Your task to perform on an android device: Search for seafood restaurants on Google Maps Image 0: 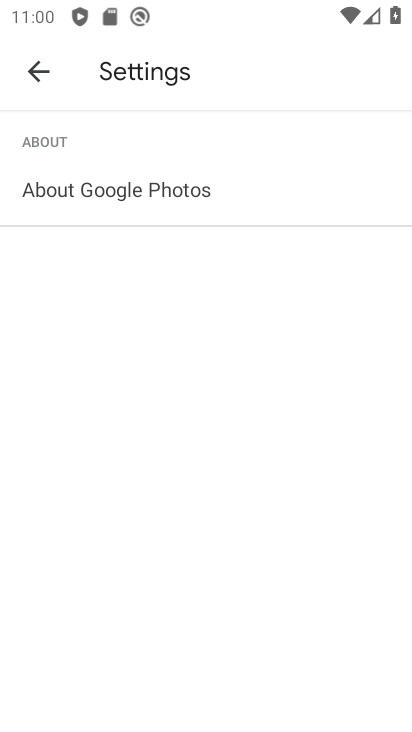
Step 0: press home button
Your task to perform on an android device: Search for seafood restaurants on Google Maps Image 1: 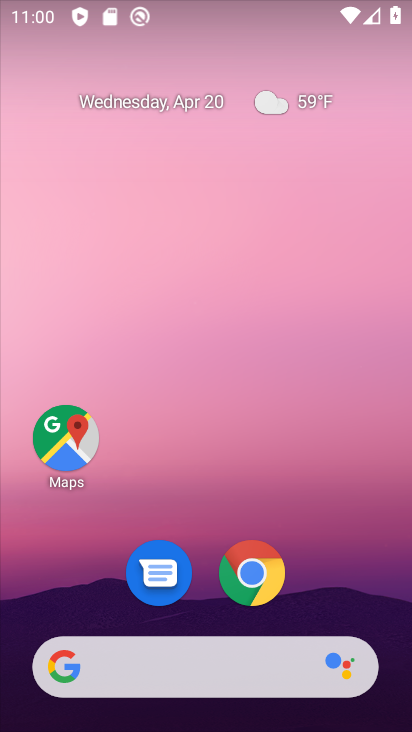
Step 1: click (59, 448)
Your task to perform on an android device: Search for seafood restaurants on Google Maps Image 2: 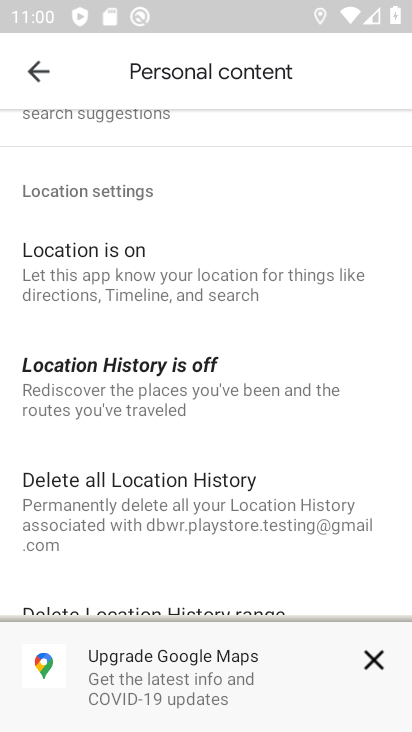
Step 2: click (34, 76)
Your task to perform on an android device: Search for seafood restaurants on Google Maps Image 3: 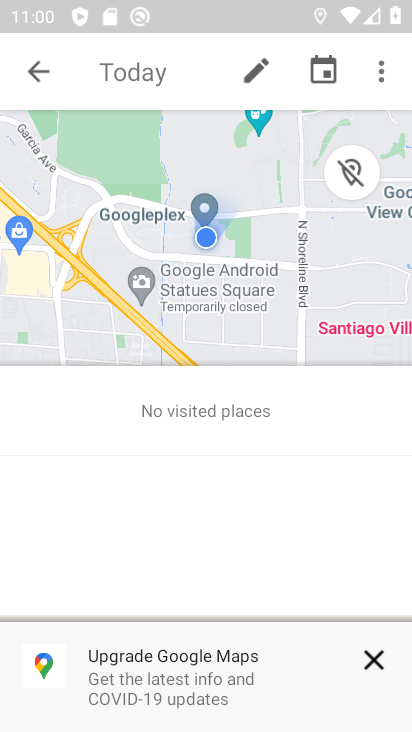
Step 3: click (46, 81)
Your task to perform on an android device: Search for seafood restaurants on Google Maps Image 4: 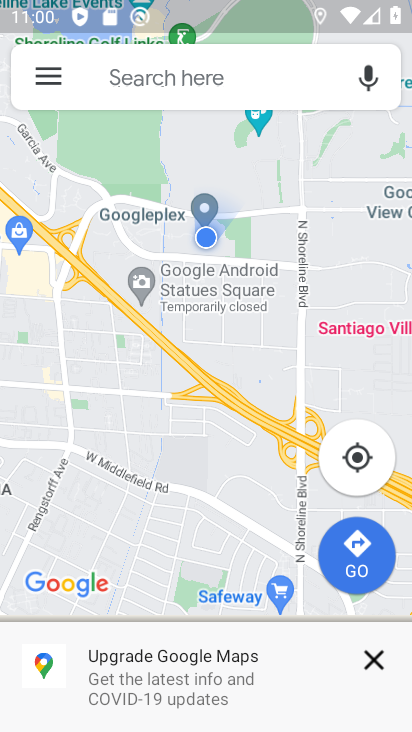
Step 4: click (112, 78)
Your task to perform on an android device: Search for seafood restaurants on Google Maps Image 5: 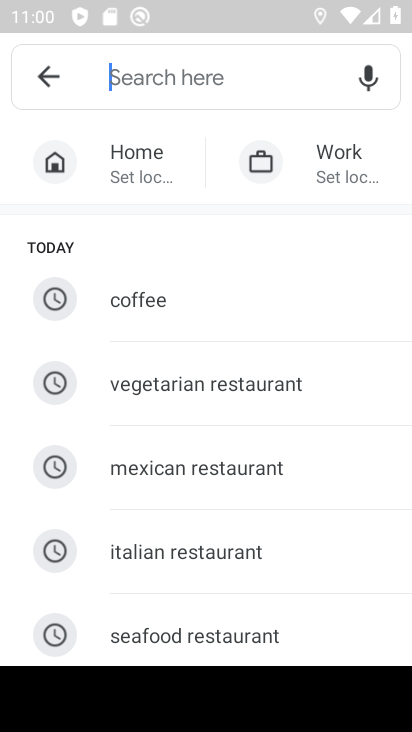
Step 5: type "seafood restaurant"
Your task to perform on an android device: Search for seafood restaurants on Google Maps Image 6: 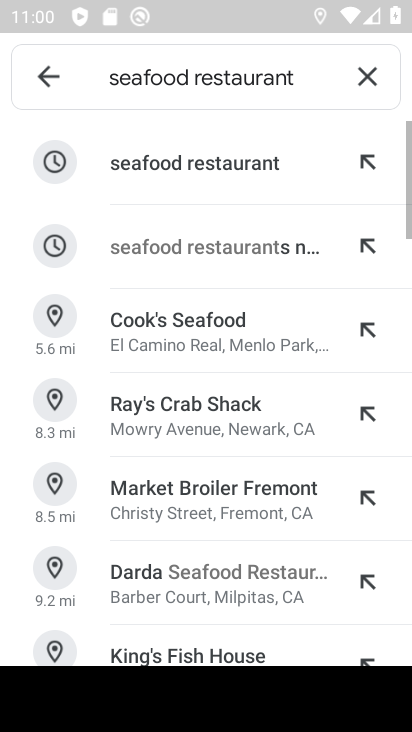
Step 6: click (163, 170)
Your task to perform on an android device: Search for seafood restaurants on Google Maps Image 7: 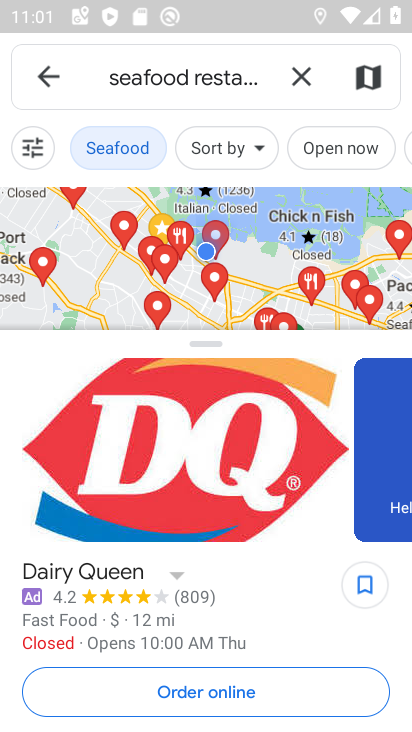
Step 7: task complete